Your task to perform on an android device: Google the capital of Colombia Image 0: 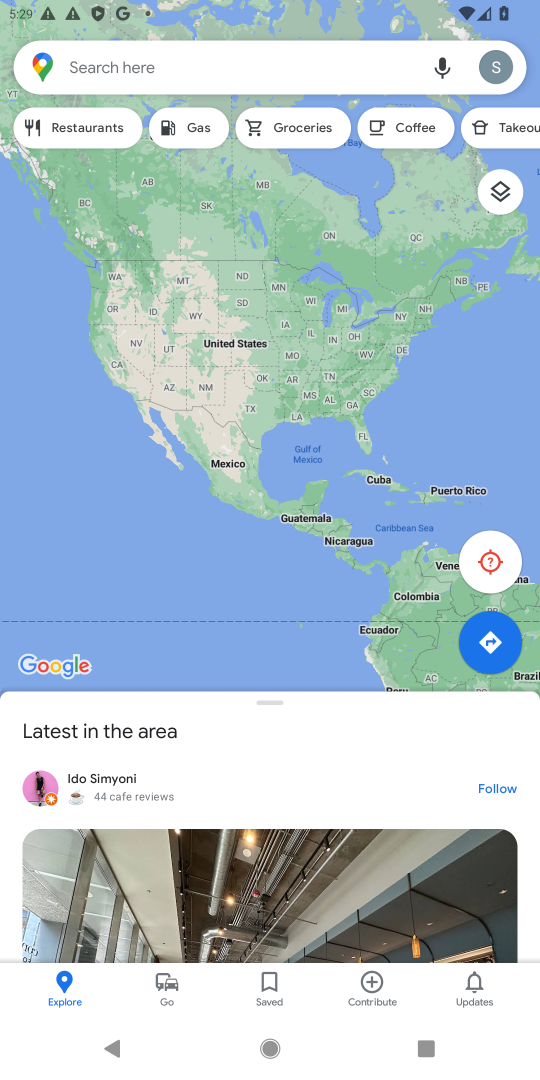
Step 0: press home button
Your task to perform on an android device: Google the capital of Colombia Image 1: 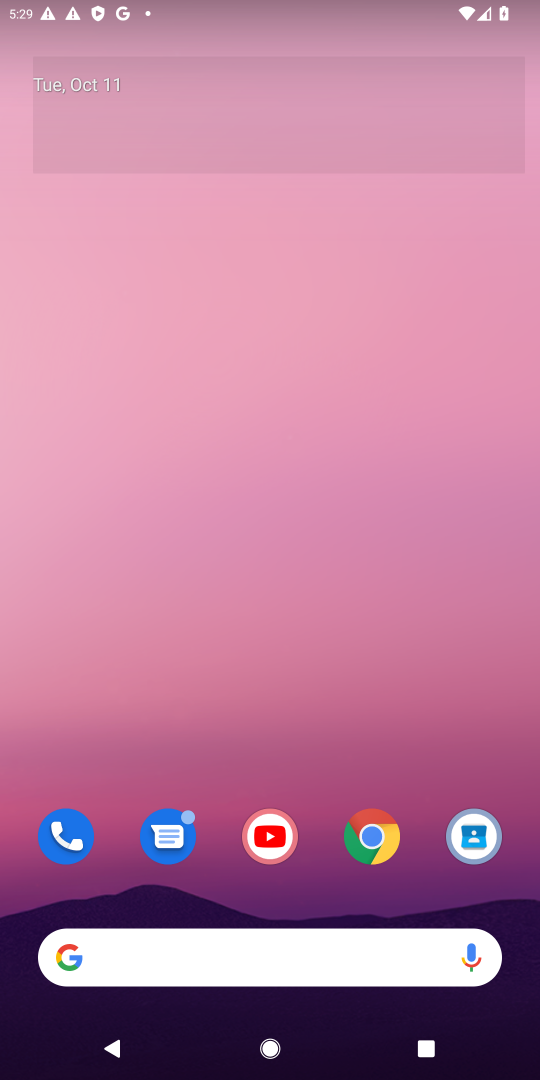
Step 1: click (370, 830)
Your task to perform on an android device: Google the capital of Colombia Image 2: 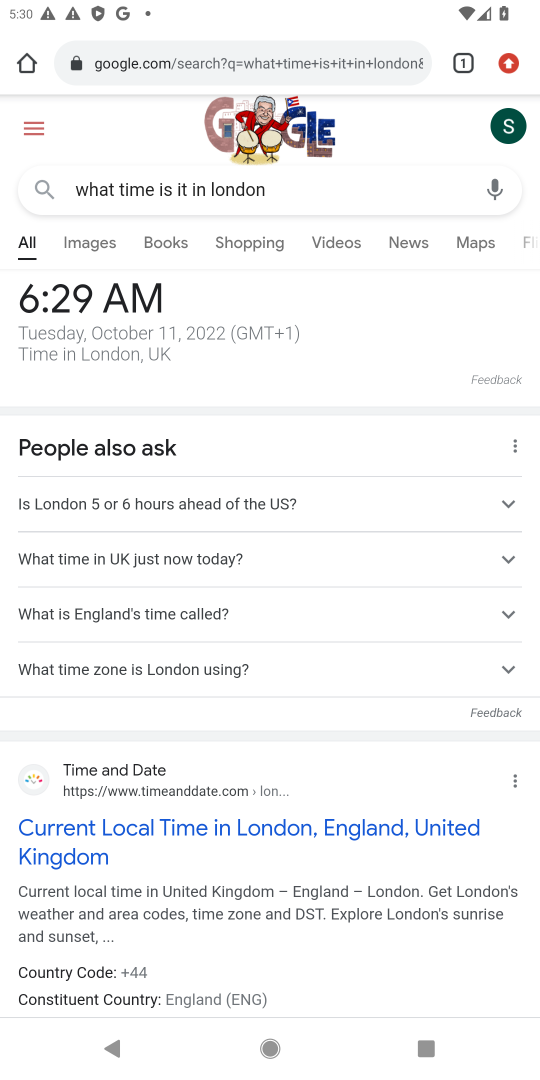
Step 2: click (320, 57)
Your task to perform on an android device: Google the capital of Colombia Image 3: 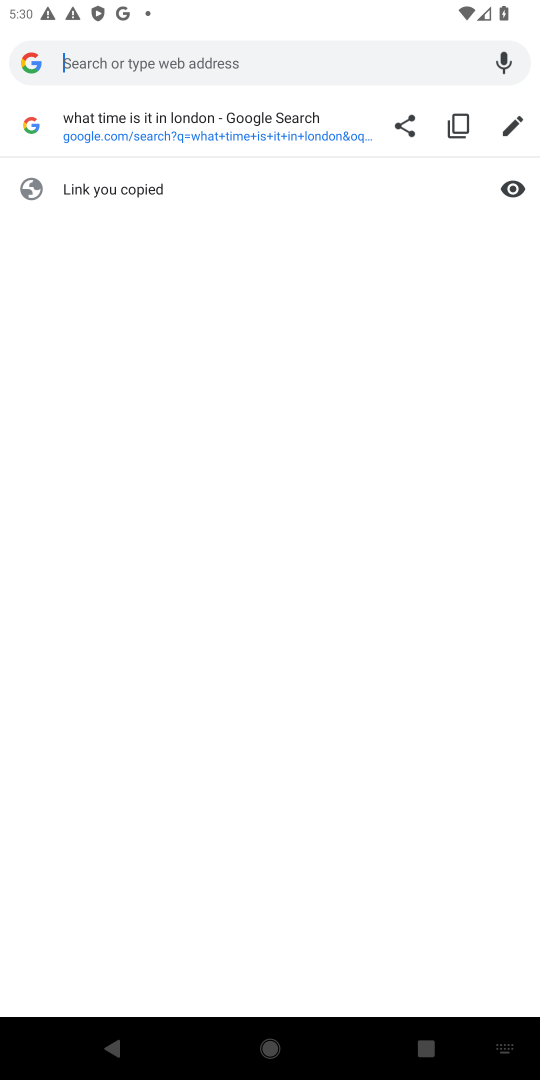
Step 3: type "capital of Colombia"
Your task to perform on an android device: Google the capital of Colombia Image 4: 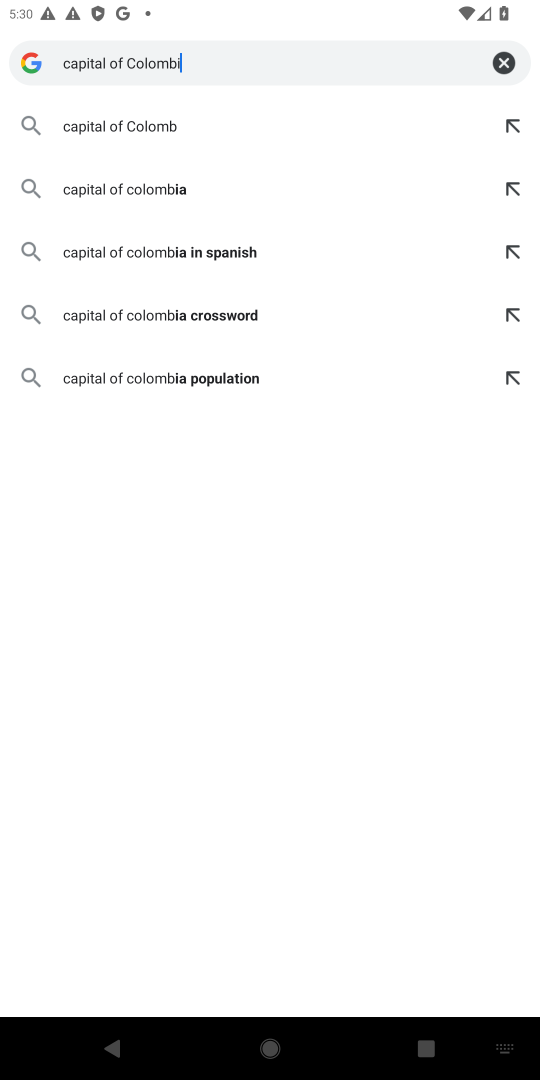
Step 4: press enter
Your task to perform on an android device: Google the capital of Colombia Image 5: 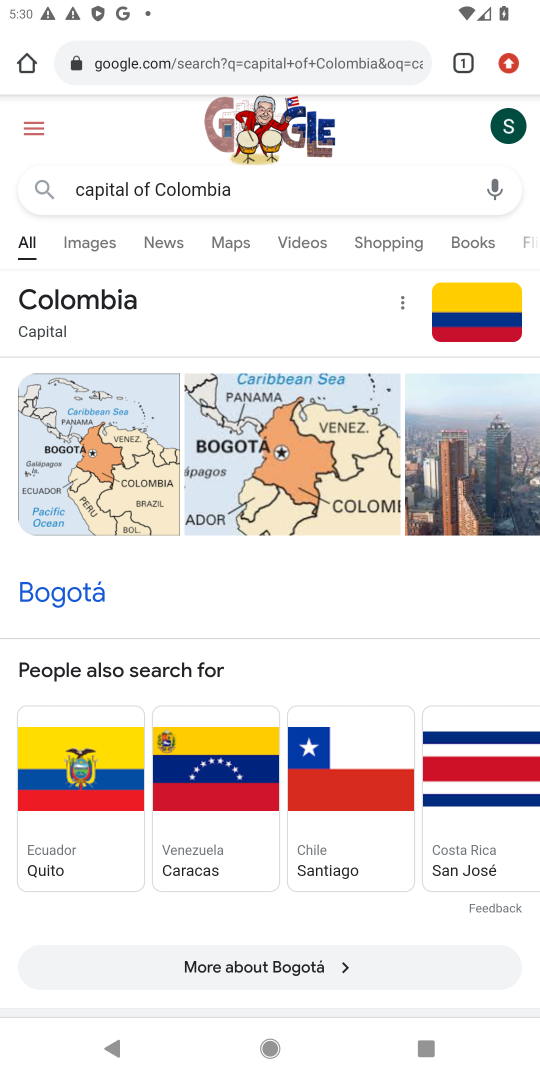
Step 5: task complete